Your task to perform on an android device: turn on notifications settings in the gmail app Image 0: 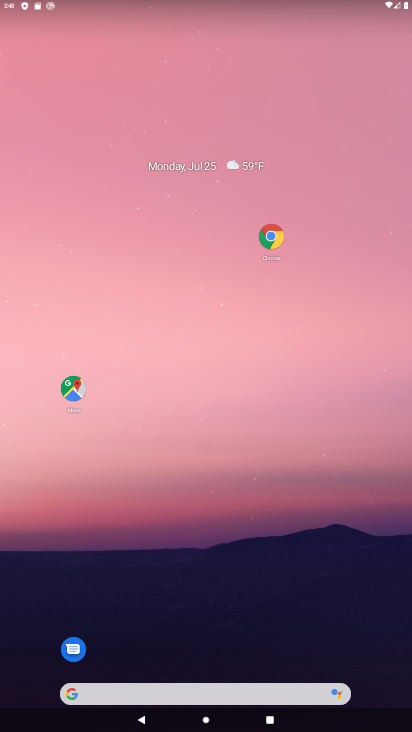
Step 0: drag from (248, 615) to (282, 178)
Your task to perform on an android device: turn on notifications settings in the gmail app Image 1: 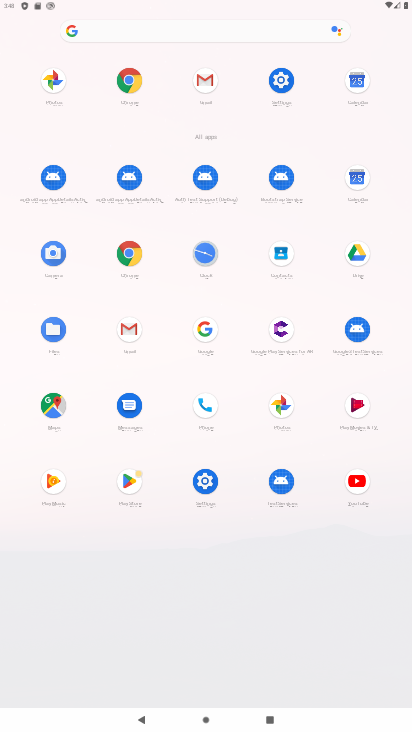
Step 1: click (134, 349)
Your task to perform on an android device: turn on notifications settings in the gmail app Image 2: 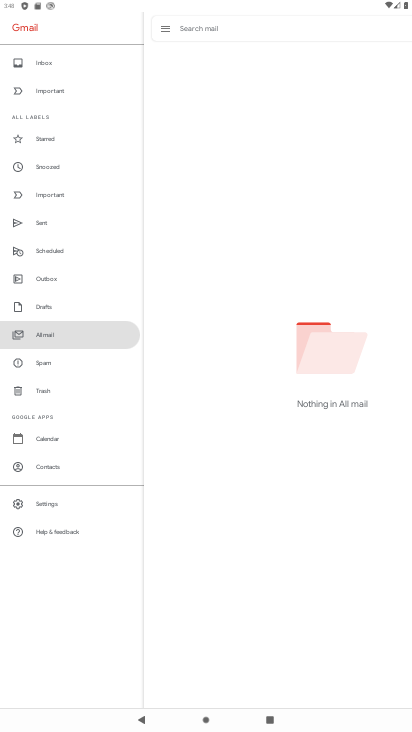
Step 2: click (45, 508)
Your task to perform on an android device: turn on notifications settings in the gmail app Image 3: 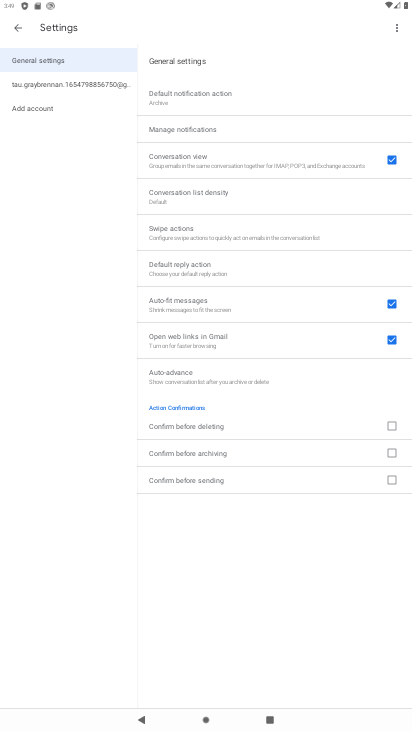
Step 3: click (227, 135)
Your task to perform on an android device: turn on notifications settings in the gmail app Image 4: 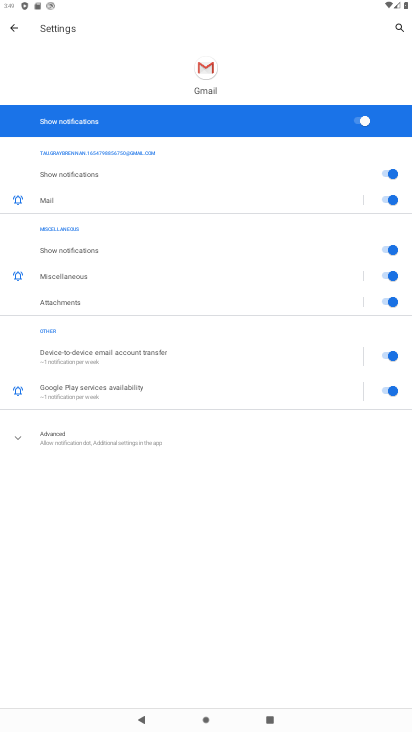
Step 4: task complete